Your task to perform on an android device: turn off wifi Image 0: 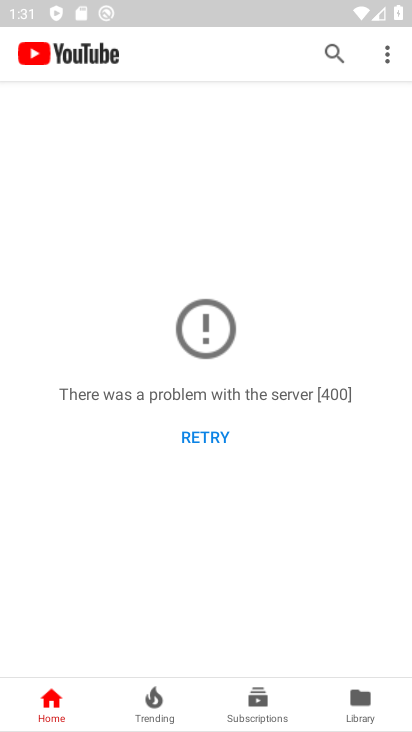
Step 0: press home button
Your task to perform on an android device: turn off wifi Image 1: 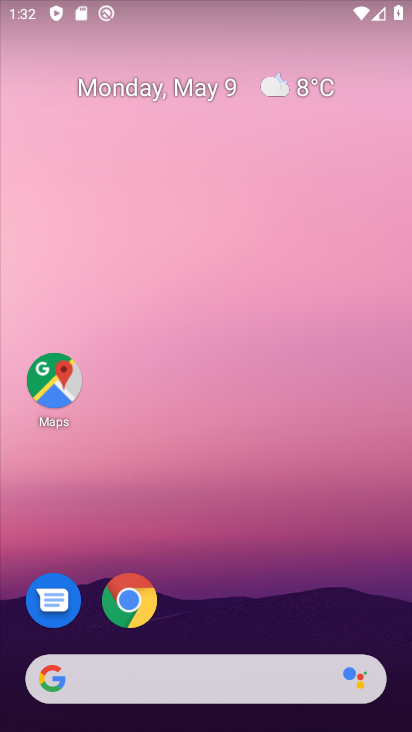
Step 1: drag from (130, 0) to (137, 575)
Your task to perform on an android device: turn off wifi Image 2: 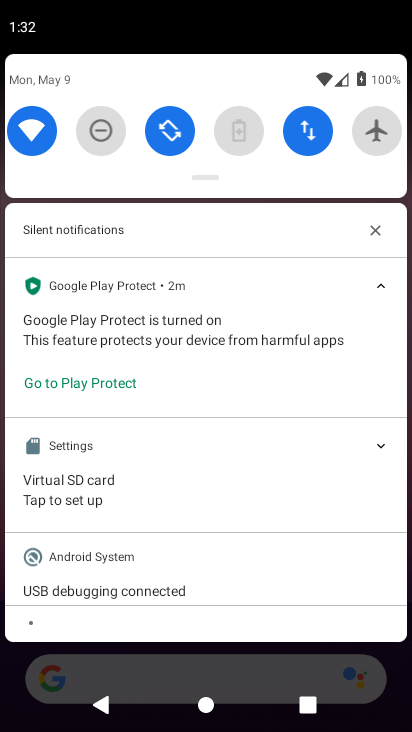
Step 2: click (29, 135)
Your task to perform on an android device: turn off wifi Image 3: 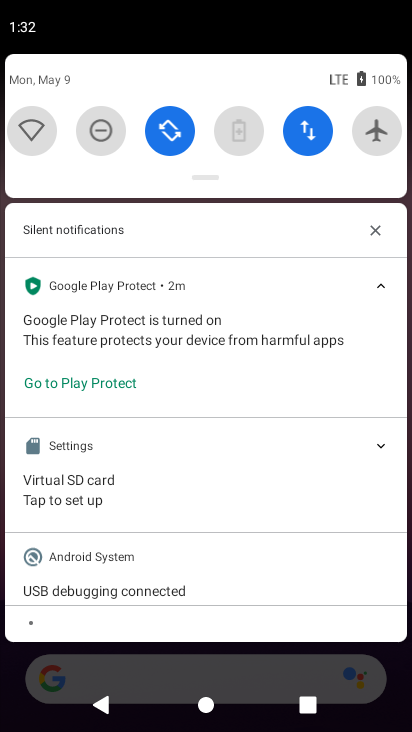
Step 3: task complete